Your task to perform on an android device: see tabs open on other devices in the chrome app Image 0: 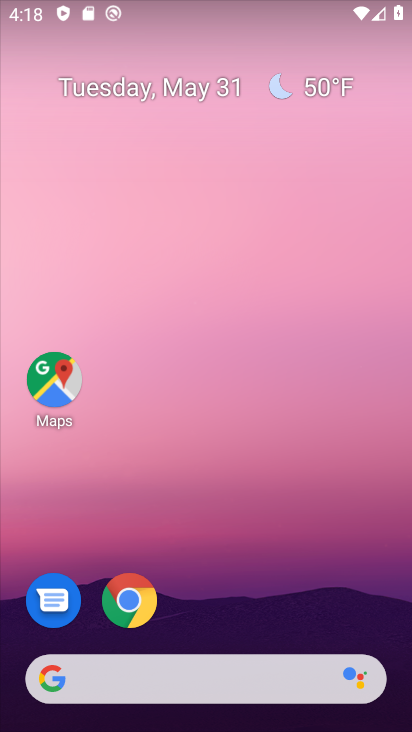
Step 0: click (129, 600)
Your task to perform on an android device: see tabs open on other devices in the chrome app Image 1: 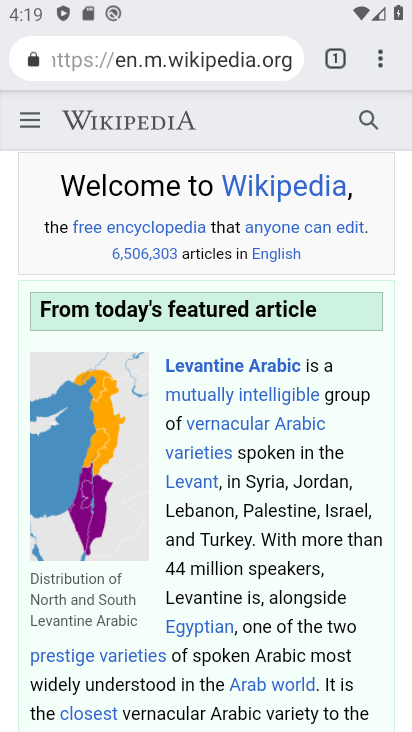
Step 1: click (382, 62)
Your task to perform on an android device: see tabs open on other devices in the chrome app Image 2: 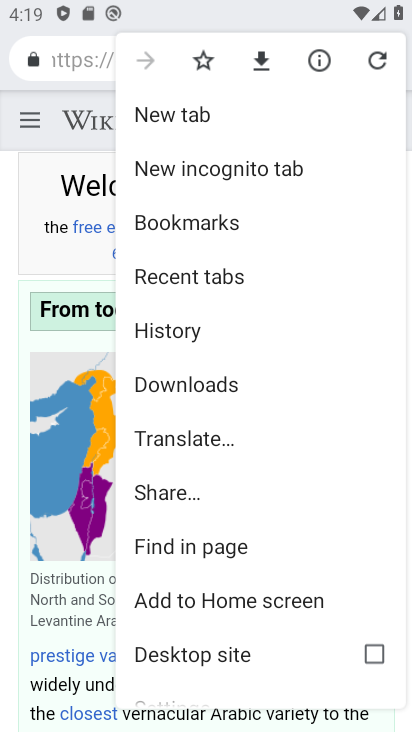
Step 2: click (212, 280)
Your task to perform on an android device: see tabs open on other devices in the chrome app Image 3: 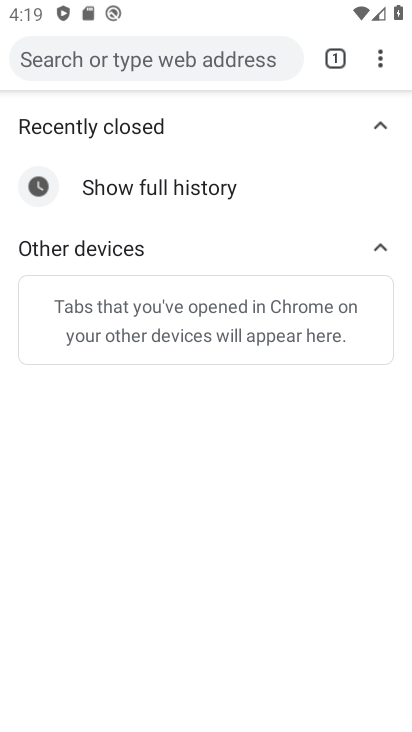
Step 3: task complete